Your task to perform on an android device: delete location history Image 0: 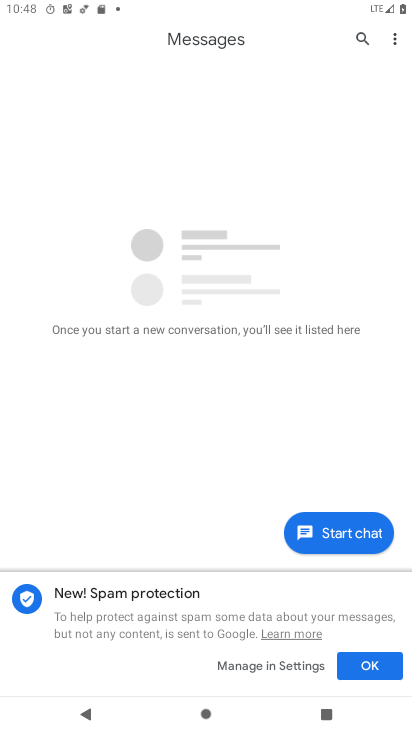
Step 0: press home button
Your task to perform on an android device: delete location history Image 1: 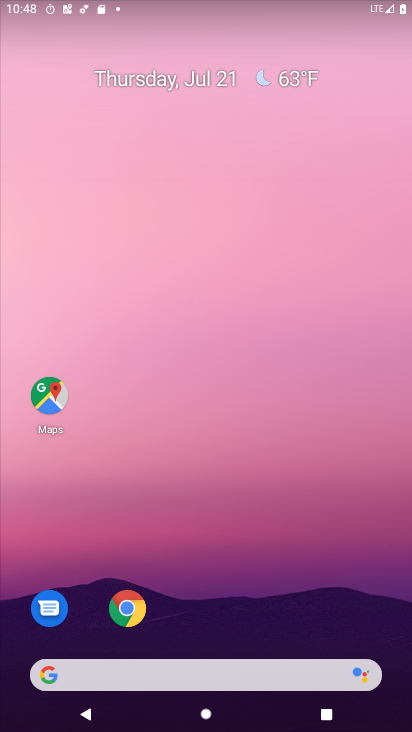
Step 1: drag from (184, 623) to (276, 15)
Your task to perform on an android device: delete location history Image 2: 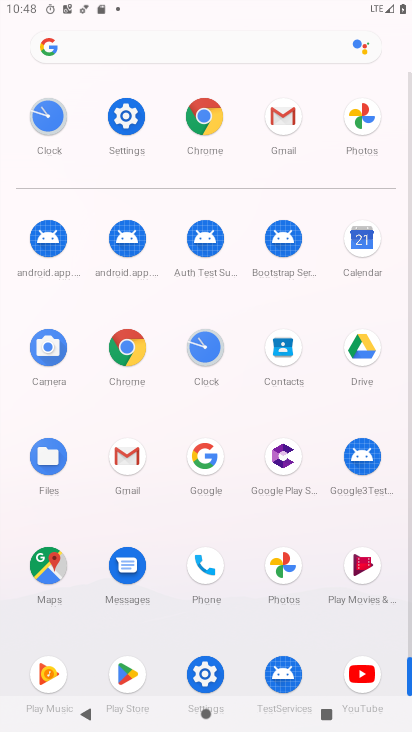
Step 2: click (137, 134)
Your task to perform on an android device: delete location history Image 3: 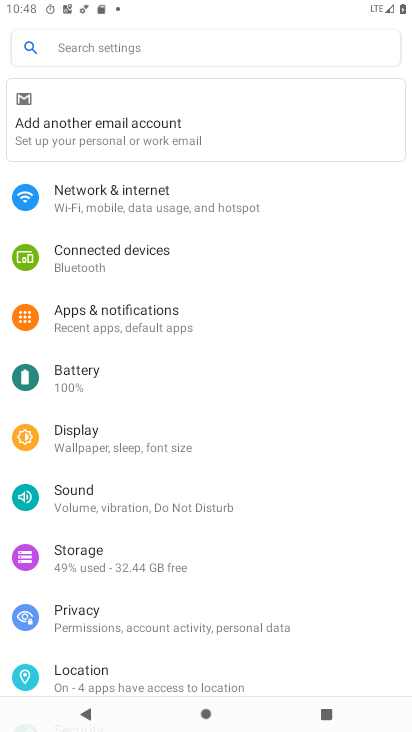
Step 3: click (123, 680)
Your task to perform on an android device: delete location history Image 4: 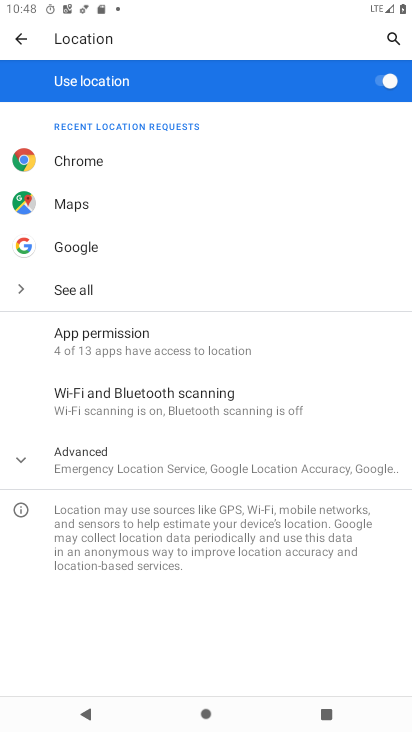
Step 4: click (150, 463)
Your task to perform on an android device: delete location history Image 5: 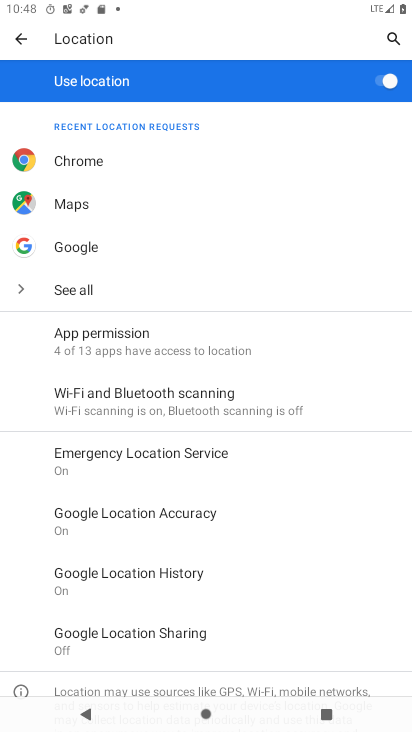
Step 5: click (167, 584)
Your task to perform on an android device: delete location history Image 6: 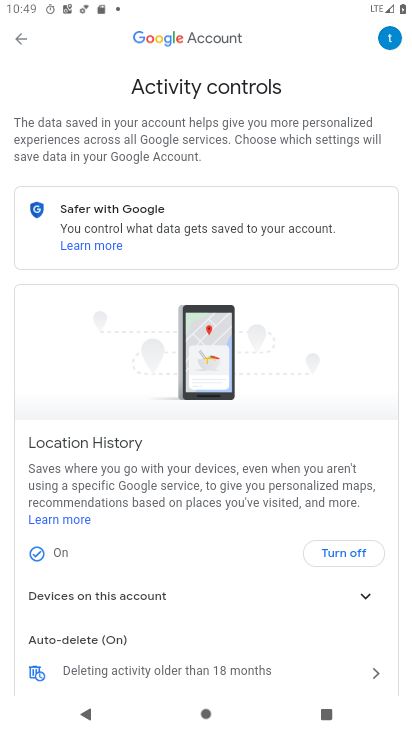
Step 6: click (209, 666)
Your task to perform on an android device: delete location history Image 7: 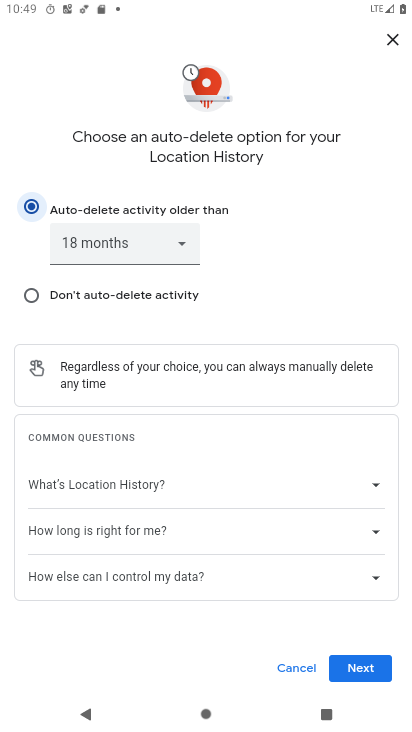
Step 7: click (377, 669)
Your task to perform on an android device: delete location history Image 8: 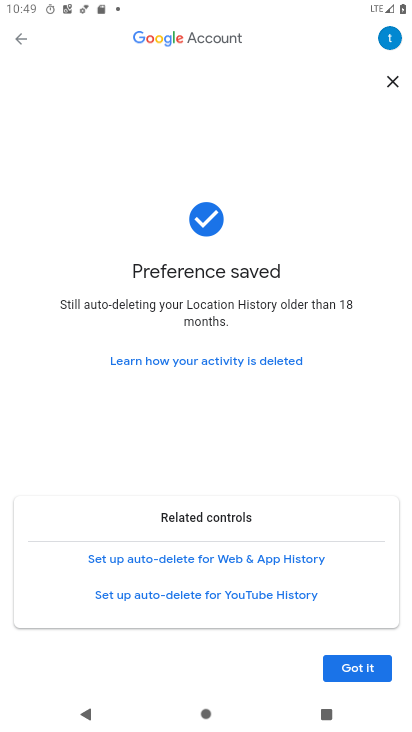
Step 8: click (373, 664)
Your task to perform on an android device: delete location history Image 9: 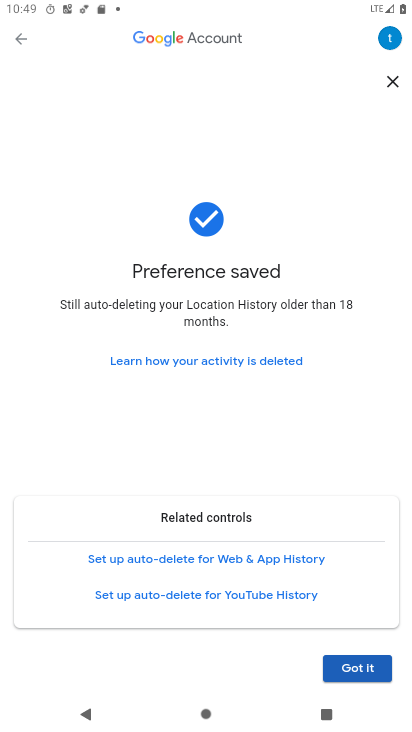
Step 9: click (376, 669)
Your task to perform on an android device: delete location history Image 10: 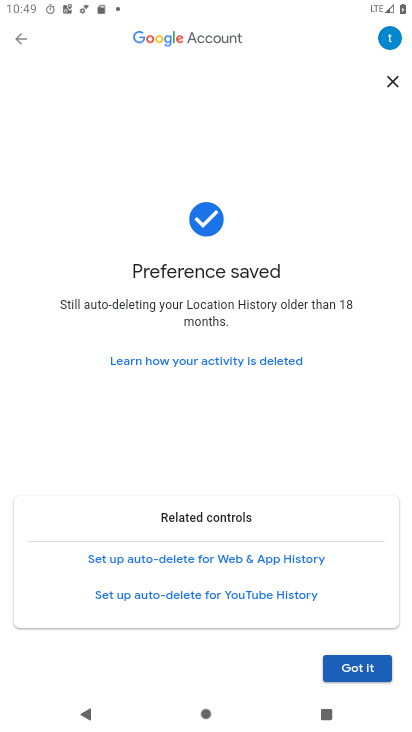
Step 10: task complete